Your task to perform on an android device: Go to Android settings Image 0: 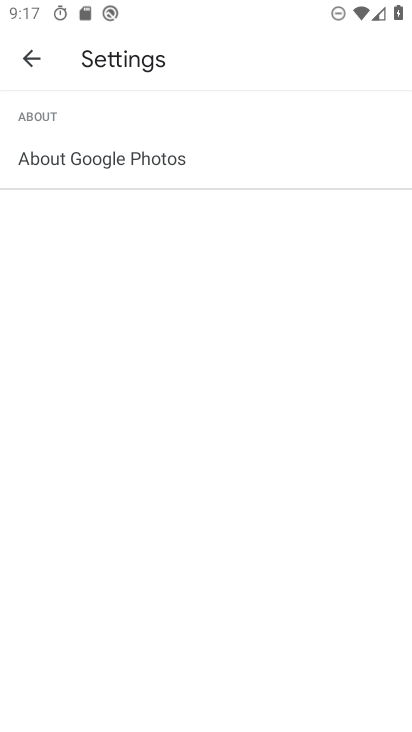
Step 0: press home button
Your task to perform on an android device: Go to Android settings Image 1: 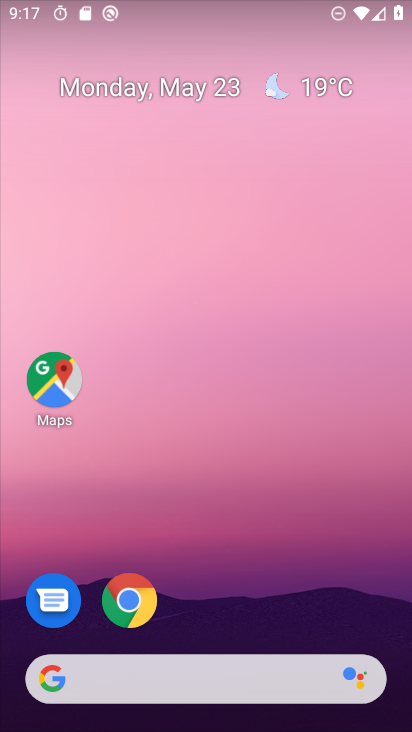
Step 1: drag from (50, 479) to (267, 55)
Your task to perform on an android device: Go to Android settings Image 2: 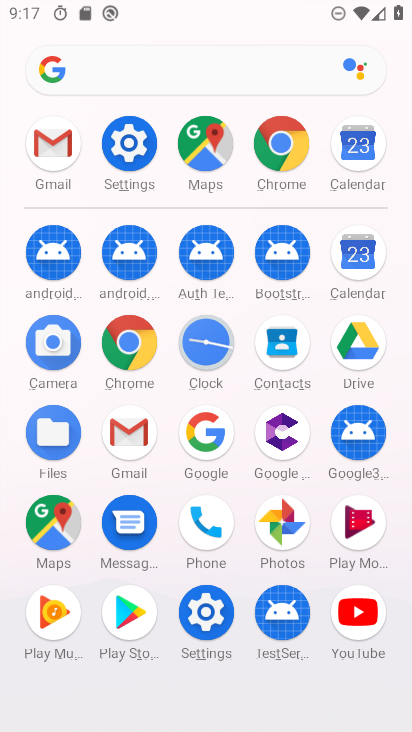
Step 2: click (129, 139)
Your task to perform on an android device: Go to Android settings Image 3: 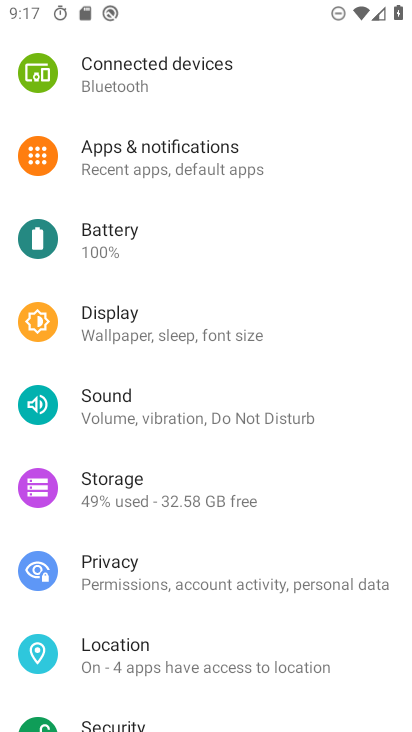
Step 3: drag from (11, 570) to (271, 91)
Your task to perform on an android device: Go to Android settings Image 4: 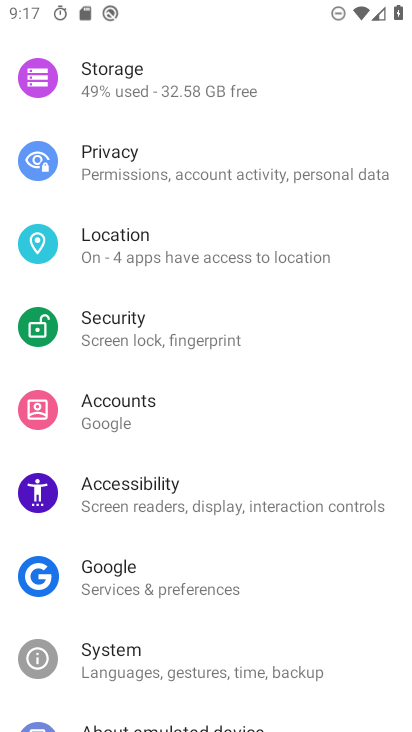
Step 4: drag from (52, 675) to (341, 172)
Your task to perform on an android device: Go to Android settings Image 5: 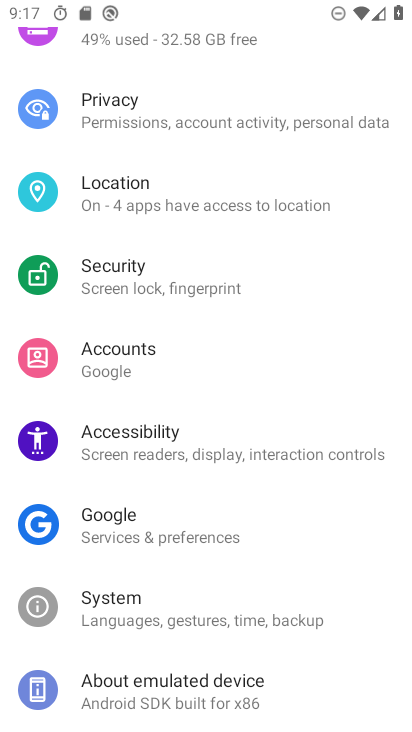
Step 5: click (198, 685)
Your task to perform on an android device: Go to Android settings Image 6: 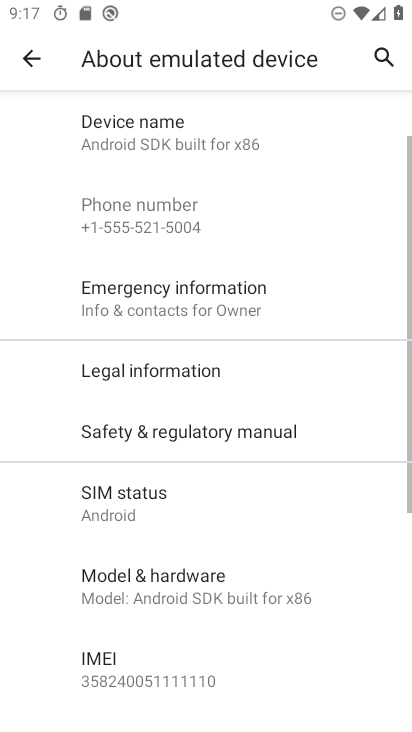
Step 6: task complete